Your task to perform on an android device: Open Yahoo.com Image 0: 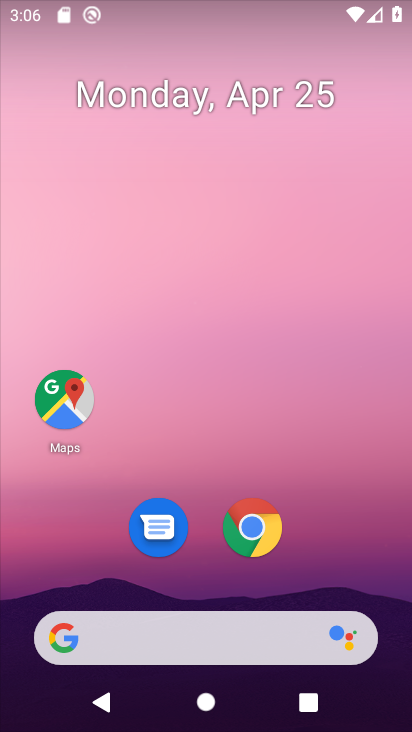
Step 0: click (251, 516)
Your task to perform on an android device: Open Yahoo.com Image 1: 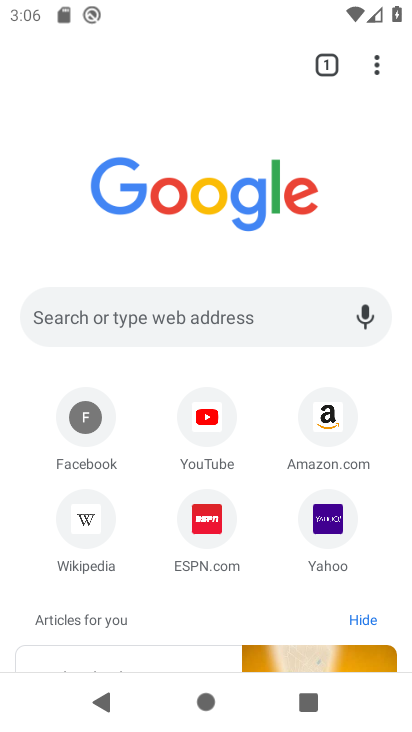
Step 1: click (182, 302)
Your task to perform on an android device: Open Yahoo.com Image 2: 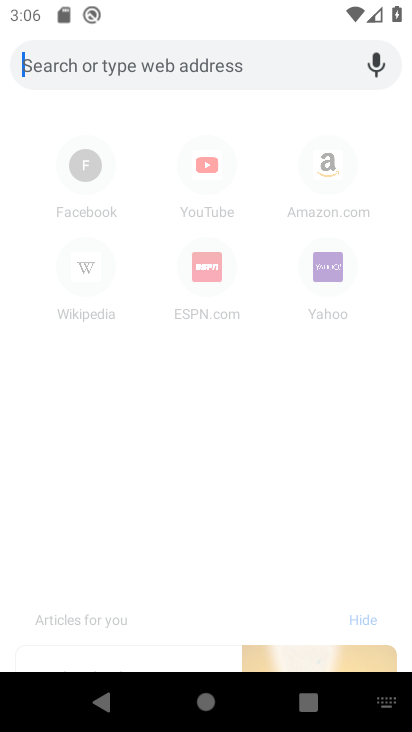
Step 2: type "yahoo.com"
Your task to perform on an android device: Open Yahoo.com Image 3: 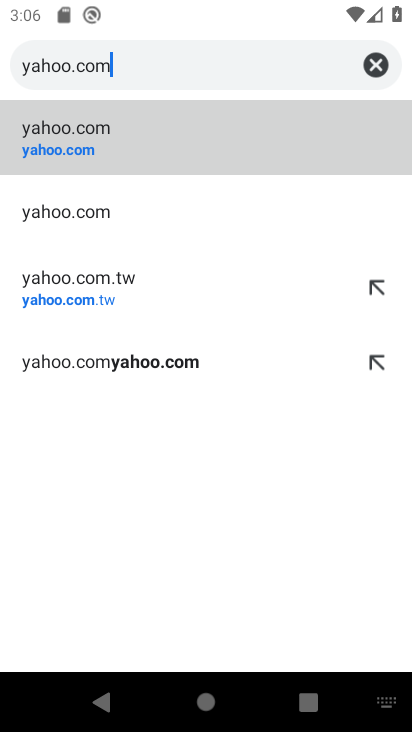
Step 3: click (67, 131)
Your task to perform on an android device: Open Yahoo.com Image 4: 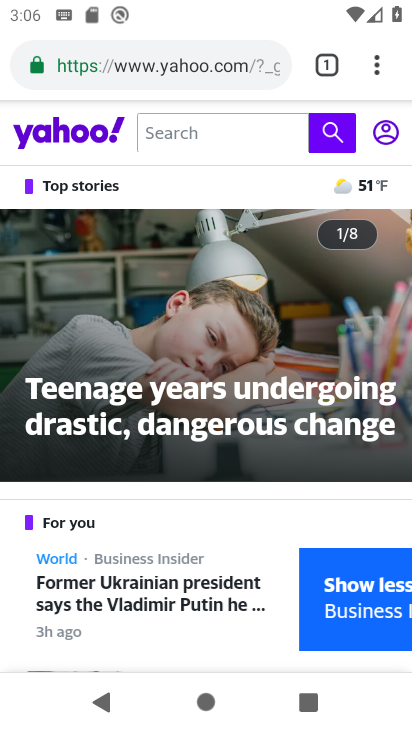
Step 4: task complete